Your task to perform on an android device: manage bookmarks in the chrome app Image 0: 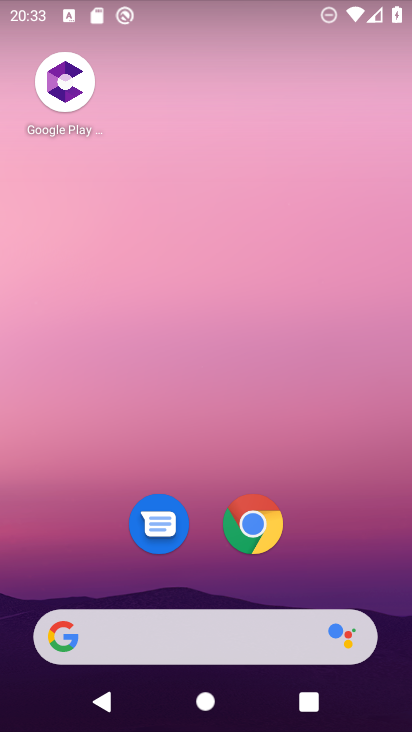
Step 0: click (249, 527)
Your task to perform on an android device: manage bookmarks in the chrome app Image 1: 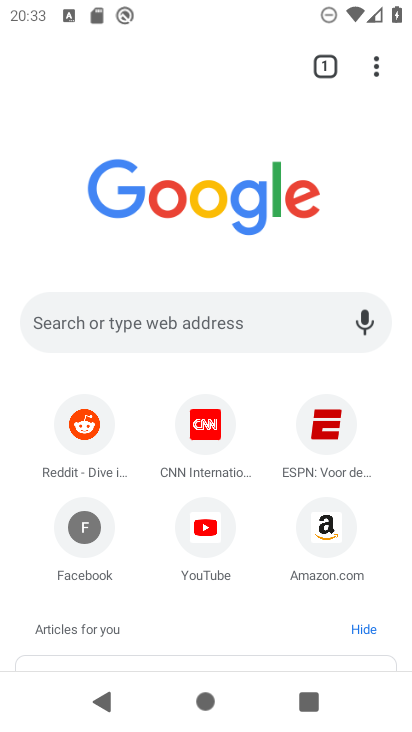
Step 1: click (373, 71)
Your task to perform on an android device: manage bookmarks in the chrome app Image 2: 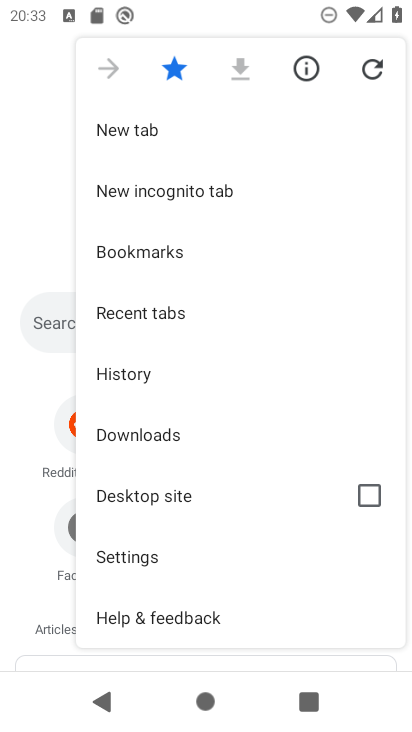
Step 2: click (169, 246)
Your task to perform on an android device: manage bookmarks in the chrome app Image 3: 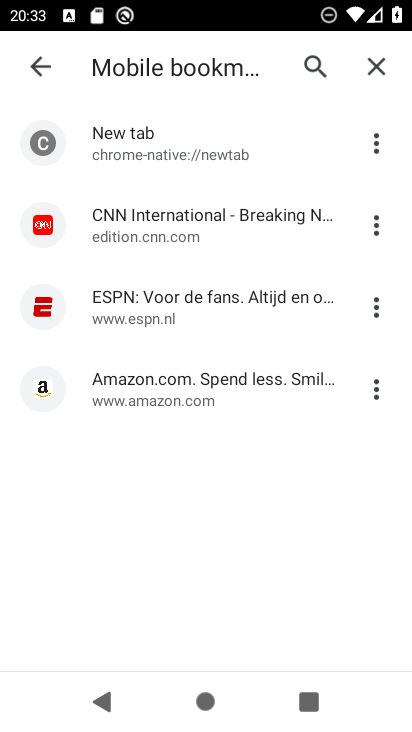
Step 3: click (370, 222)
Your task to perform on an android device: manage bookmarks in the chrome app Image 4: 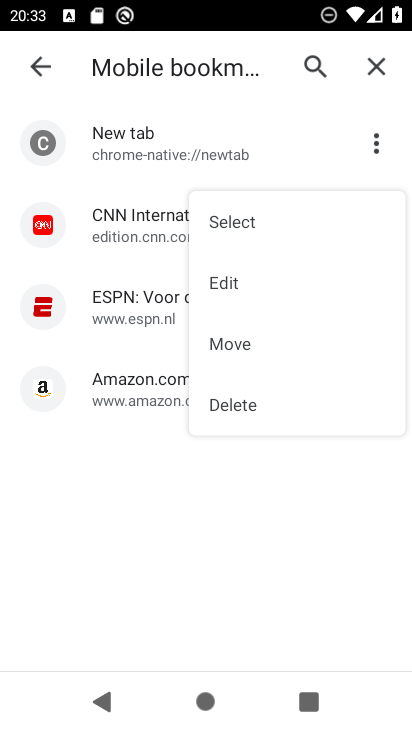
Step 4: click (263, 278)
Your task to perform on an android device: manage bookmarks in the chrome app Image 5: 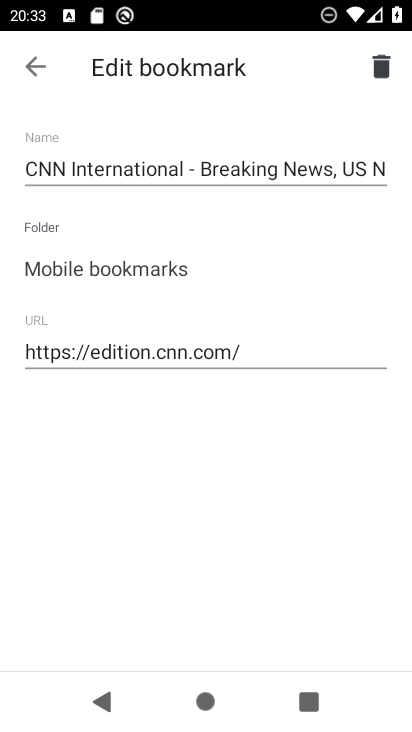
Step 5: task complete